Your task to perform on an android device: Go to Maps Image 0: 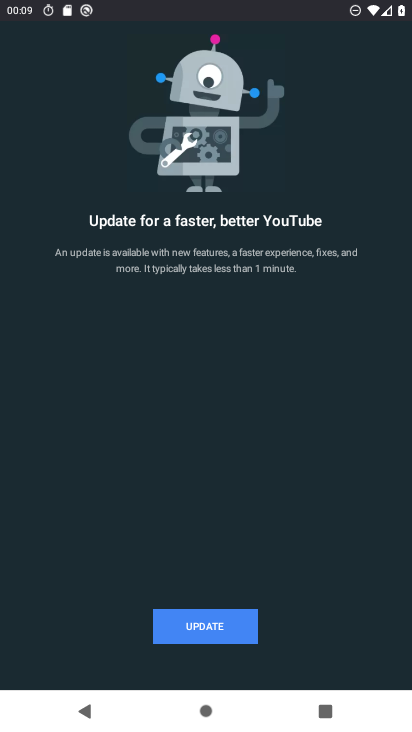
Step 0: press home button
Your task to perform on an android device: Go to Maps Image 1: 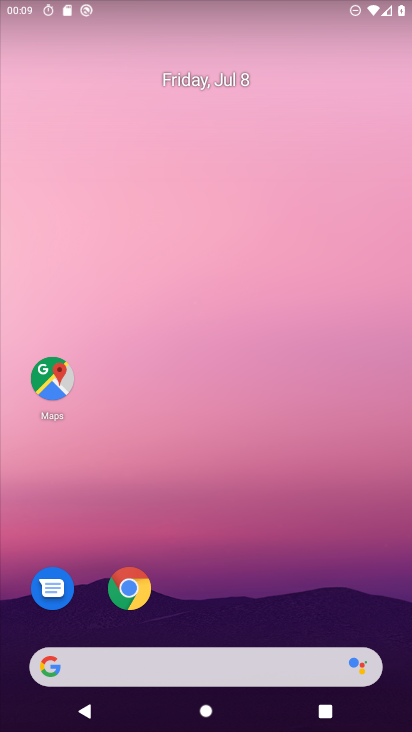
Step 1: drag from (273, 566) to (270, 74)
Your task to perform on an android device: Go to Maps Image 2: 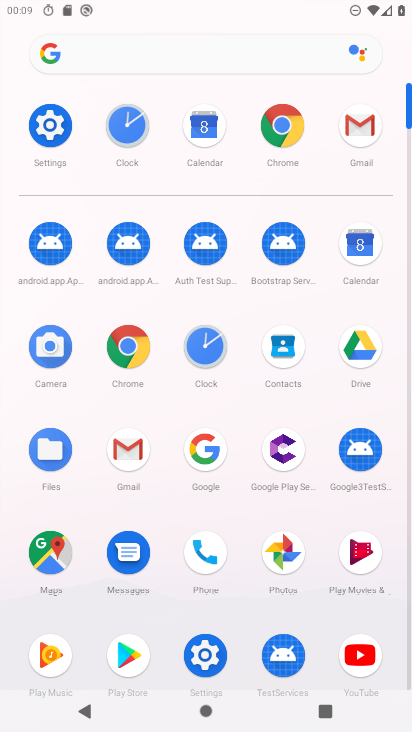
Step 2: click (55, 558)
Your task to perform on an android device: Go to Maps Image 3: 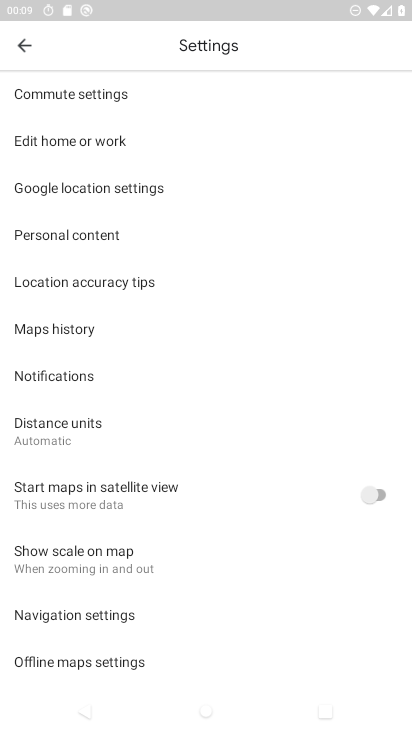
Step 3: click (19, 50)
Your task to perform on an android device: Go to Maps Image 4: 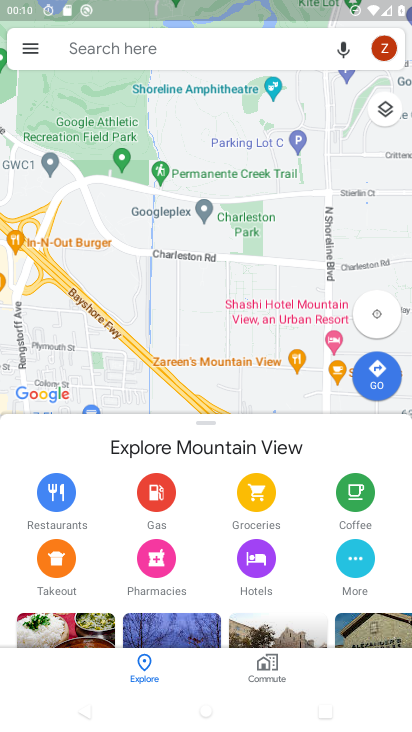
Step 4: task complete